Your task to perform on an android device: add a contact in the contacts app Image 0: 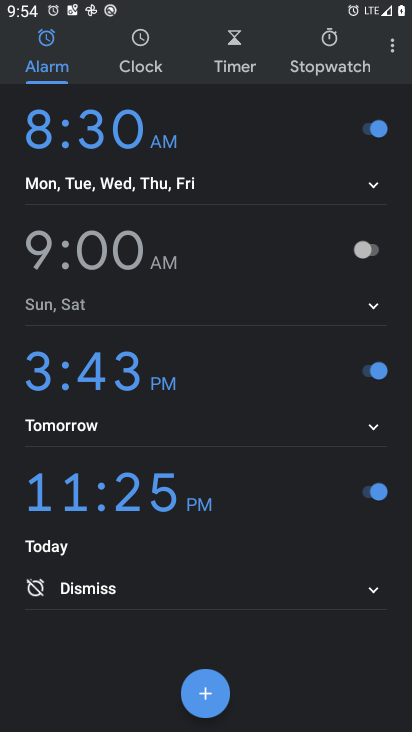
Step 0: press home button
Your task to perform on an android device: add a contact in the contacts app Image 1: 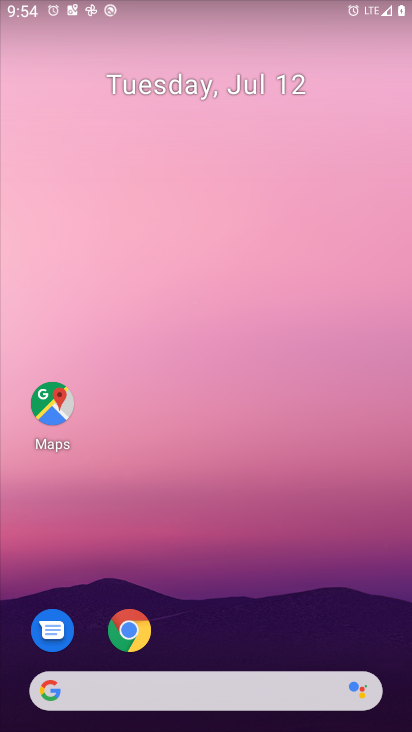
Step 1: drag from (230, 606) to (243, 217)
Your task to perform on an android device: add a contact in the contacts app Image 2: 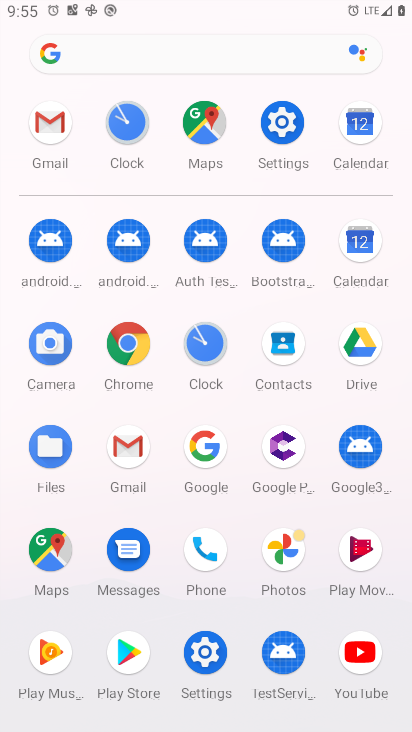
Step 2: click (280, 345)
Your task to perform on an android device: add a contact in the contacts app Image 3: 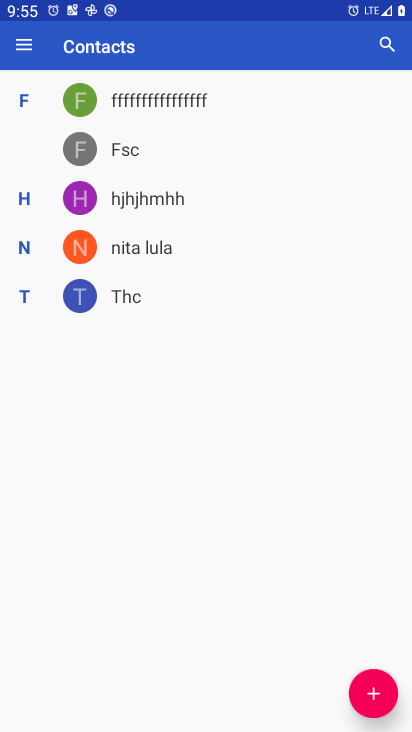
Step 3: click (388, 696)
Your task to perform on an android device: add a contact in the contacts app Image 4: 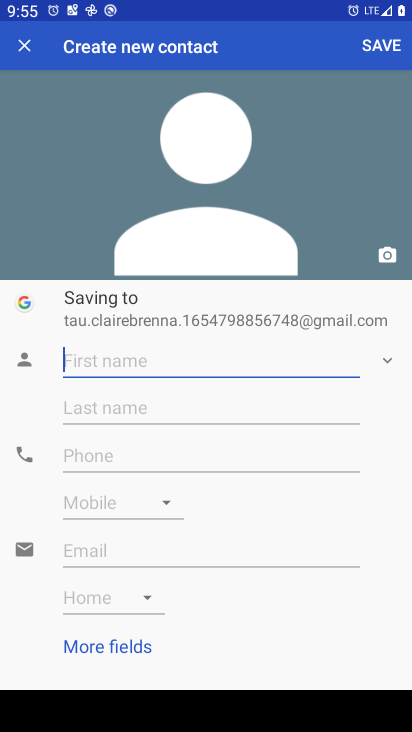
Step 4: type "ffffffffssssssssss"
Your task to perform on an android device: add a contact in the contacts app Image 5: 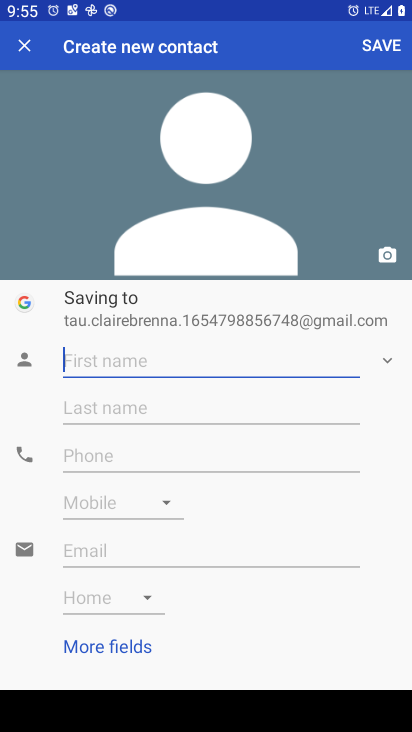
Step 5: click (80, 363)
Your task to perform on an android device: add a contact in the contacts app Image 6: 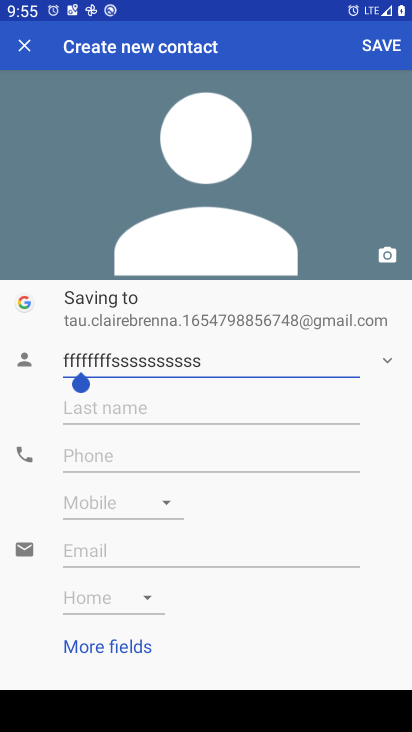
Step 6: click (119, 444)
Your task to perform on an android device: add a contact in the contacts app Image 7: 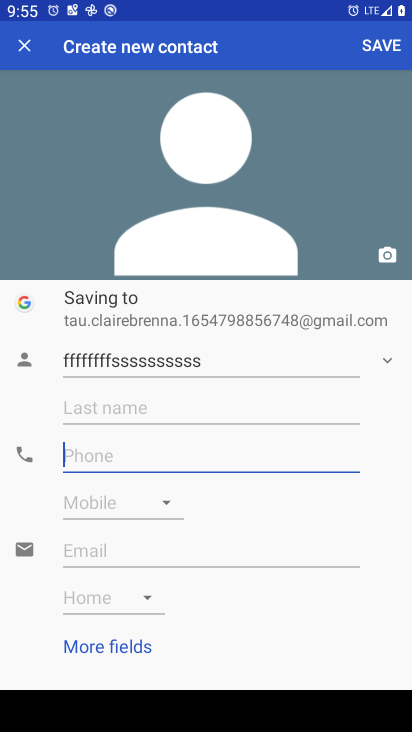
Step 7: type "4444444333333322222222222"
Your task to perform on an android device: add a contact in the contacts app Image 8: 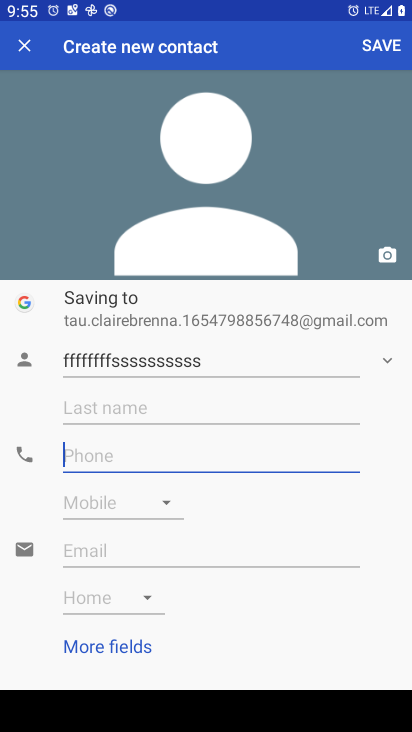
Step 8: click (94, 458)
Your task to perform on an android device: add a contact in the contacts app Image 9: 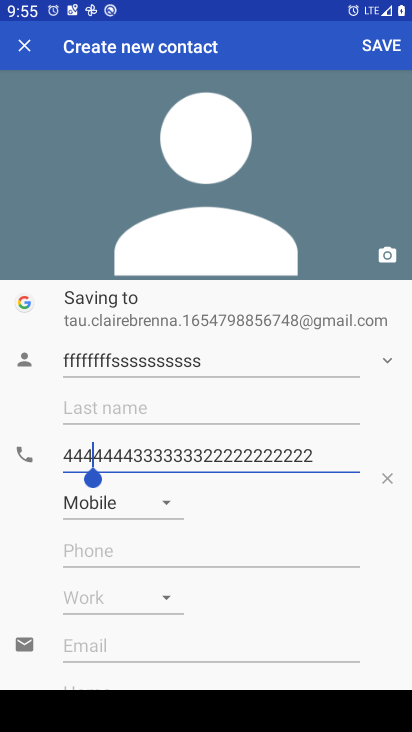
Step 9: click (372, 52)
Your task to perform on an android device: add a contact in the contacts app Image 10: 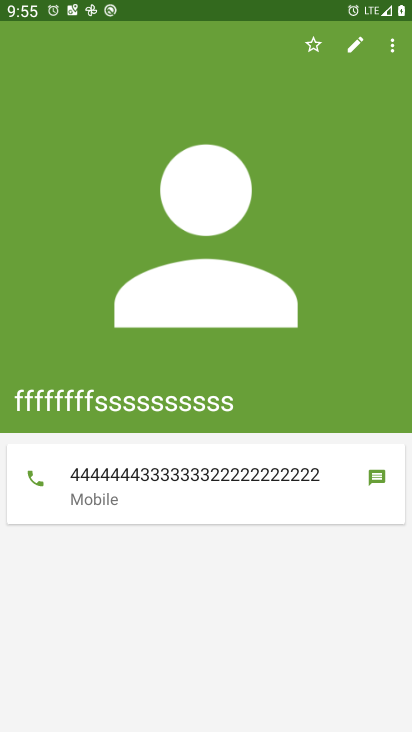
Step 10: task complete